Your task to perform on an android device: Open the calendar and show me this week's events? Image 0: 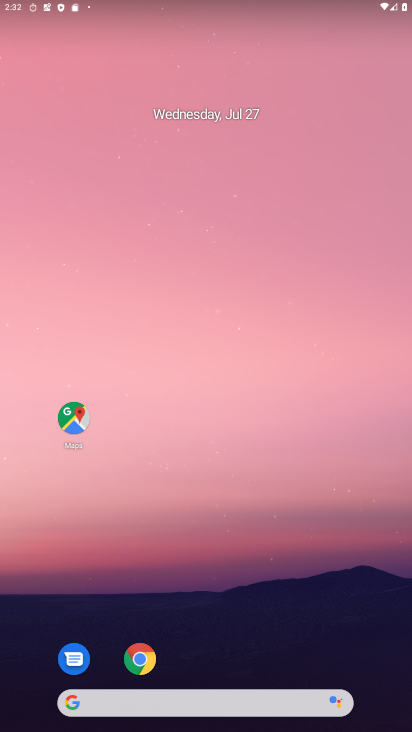
Step 0: drag from (183, 720) to (173, 248)
Your task to perform on an android device: Open the calendar and show me this week's events? Image 1: 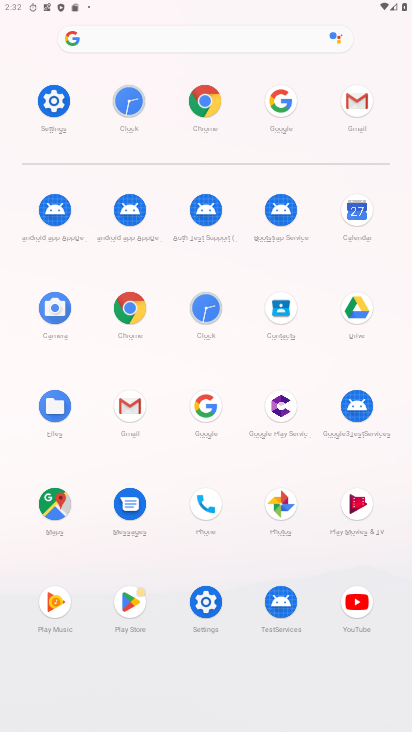
Step 1: click (355, 205)
Your task to perform on an android device: Open the calendar and show me this week's events? Image 2: 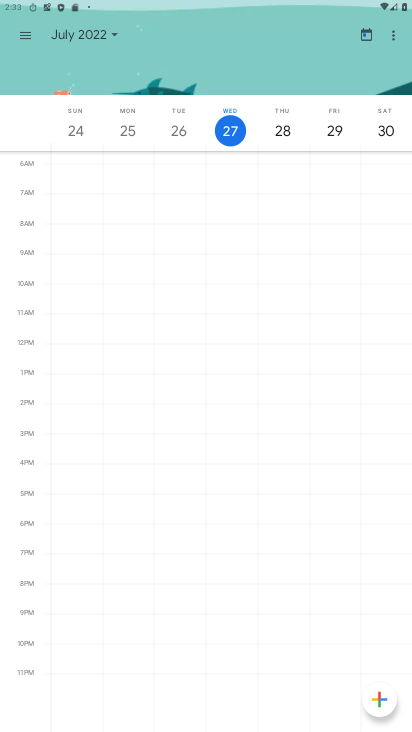
Step 2: click (27, 32)
Your task to perform on an android device: Open the calendar and show me this week's events? Image 3: 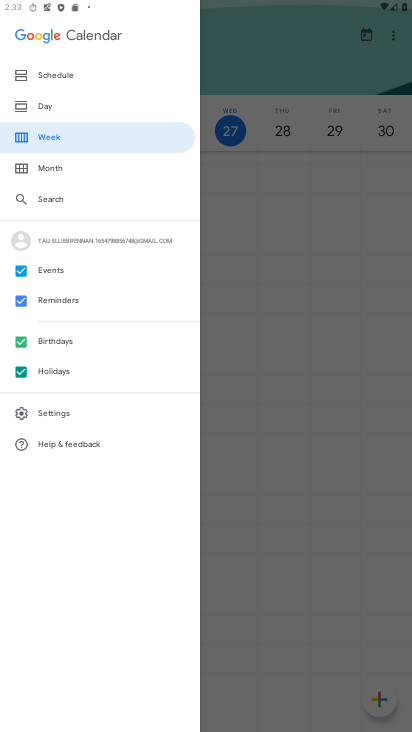
Step 3: click (18, 372)
Your task to perform on an android device: Open the calendar and show me this week's events? Image 4: 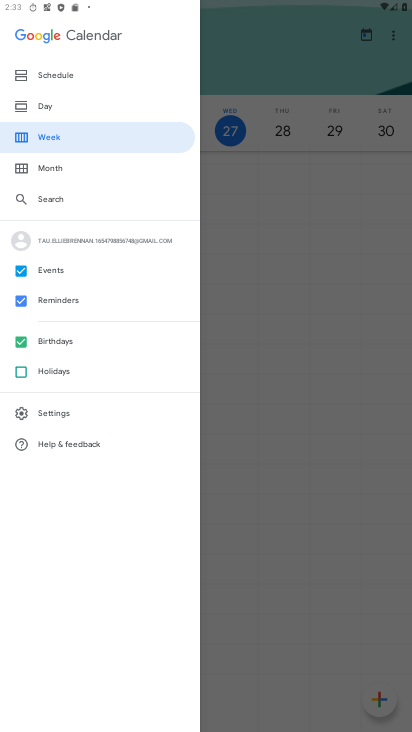
Step 4: click (20, 335)
Your task to perform on an android device: Open the calendar and show me this week's events? Image 5: 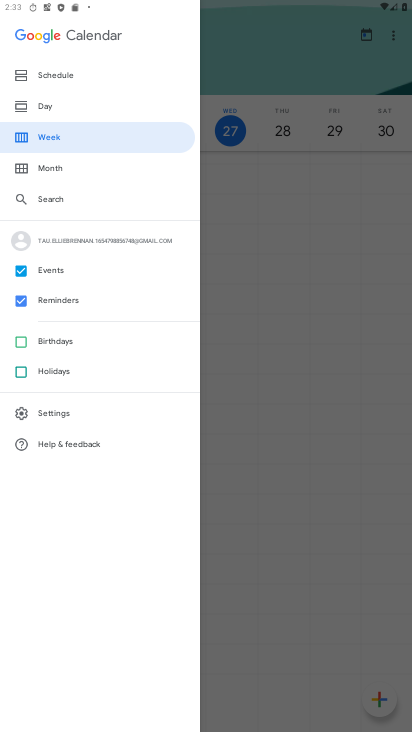
Step 5: click (19, 300)
Your task to perform on an android device: Open the calendar and show me this week's events? Image 6: 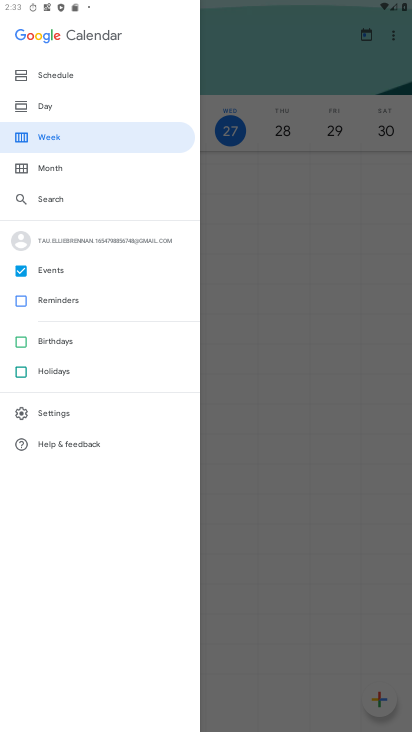
Step 6: click (64, 133)
Your task to perform on an android device: Open the calendar and show me this week's events? Image 7: 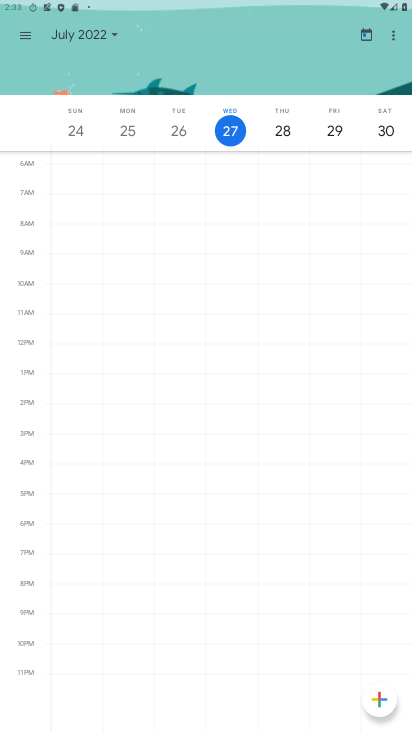
Step 7: task complete